Your task to perform on an android device: open app "Booking.com: Hotels and more" Image 0: 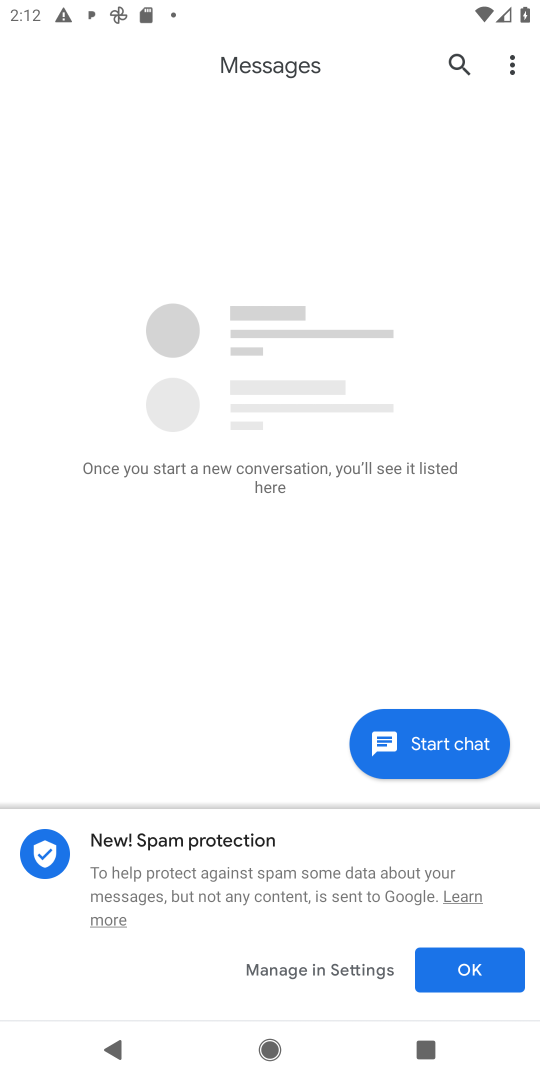
Step 0: press home button
Your task to perform on an android device: open app "Booking.com: Hotels and more" Image 1: 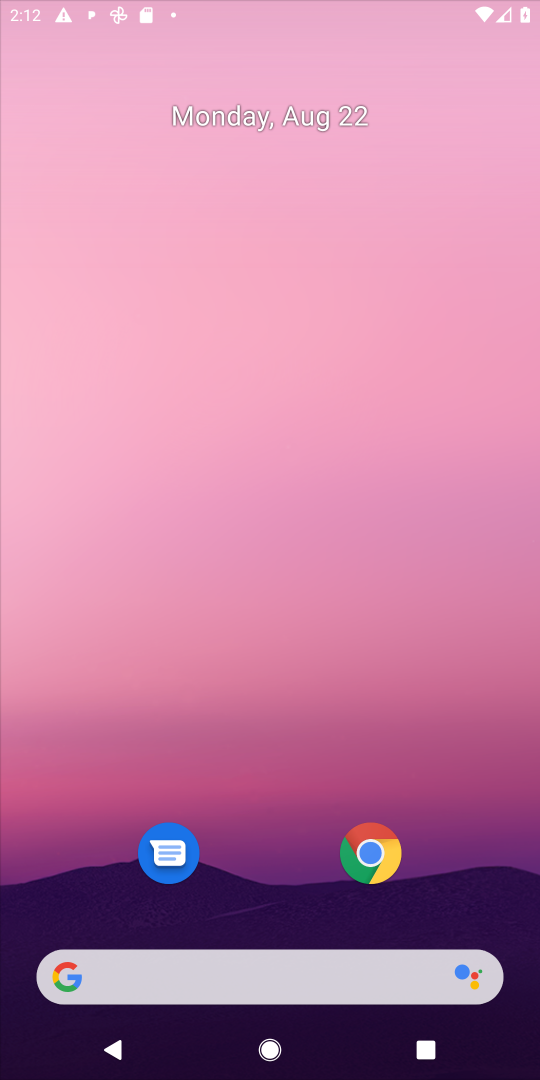
Step 1: drag from (211, 923) to (227, 279)
Your task to perform on an android device: open app "Booking.com: Hotels and more" Image 2: 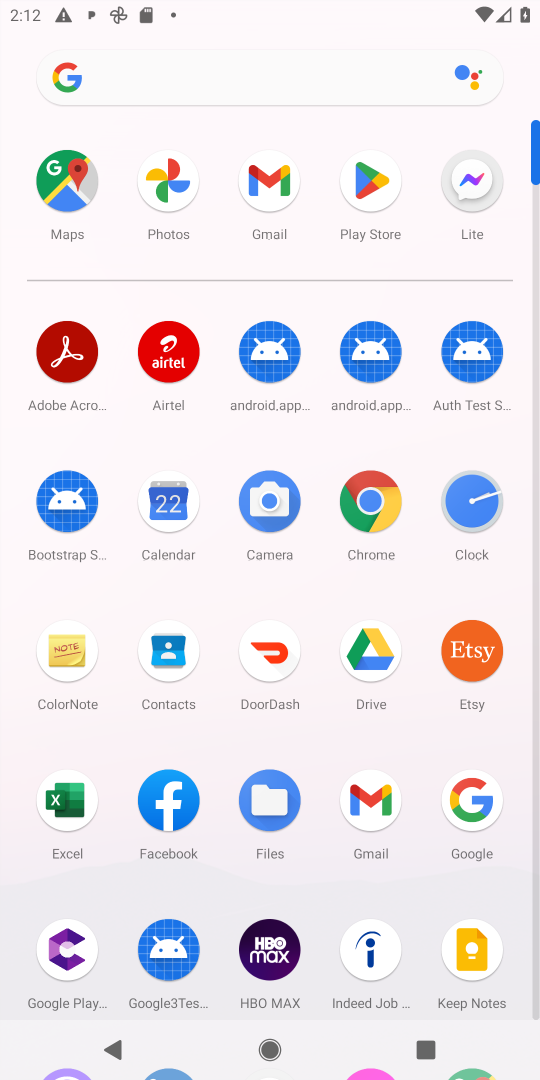
Step 2: click (379, 186)
Your task to perform on an android device: open app "Booking.com: Hotels and more" Image 3: 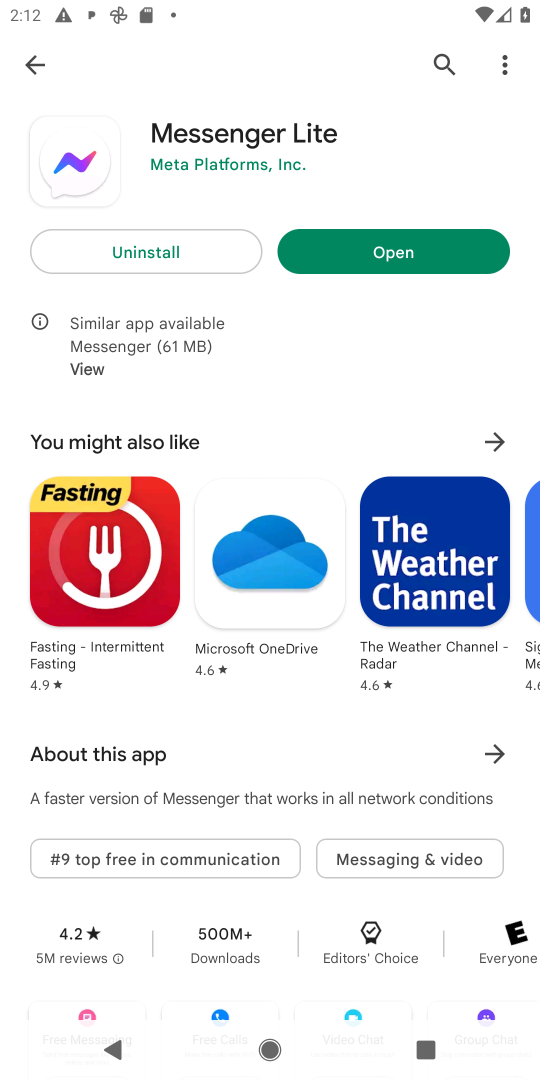
Step 3: click (22, 59)
Your task to perform on an android device: open app "Booking.com: Hotels and more" Image 4: 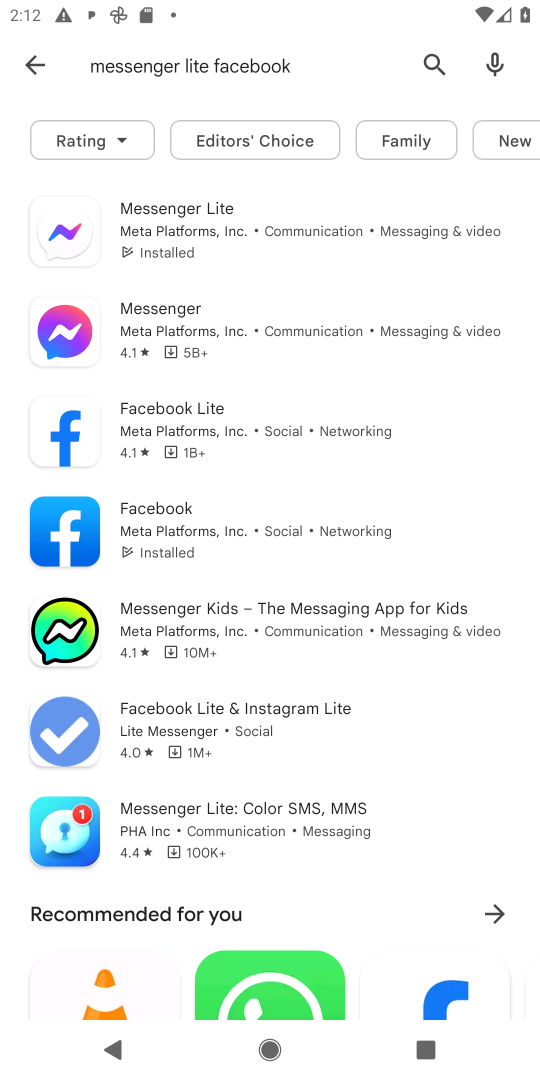
Step 4: click (50, 62)
Your task to perform on an android device: open app "Booking.com: Hotels and more" Image 5: 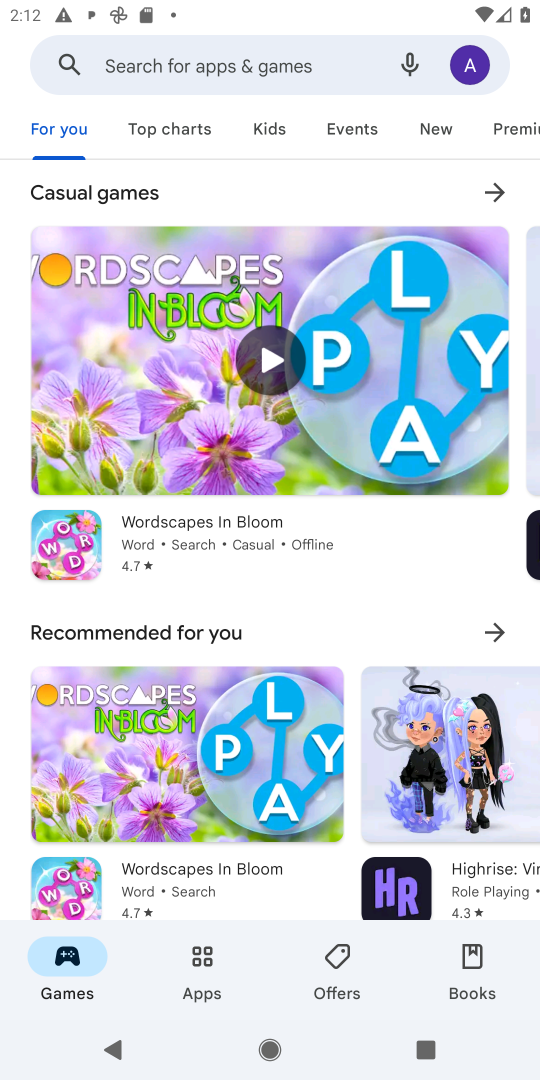
Step 5: click (264, 50)
Your task to perform on an android device: open app "Booking.com: Hotels and more" Image 6: 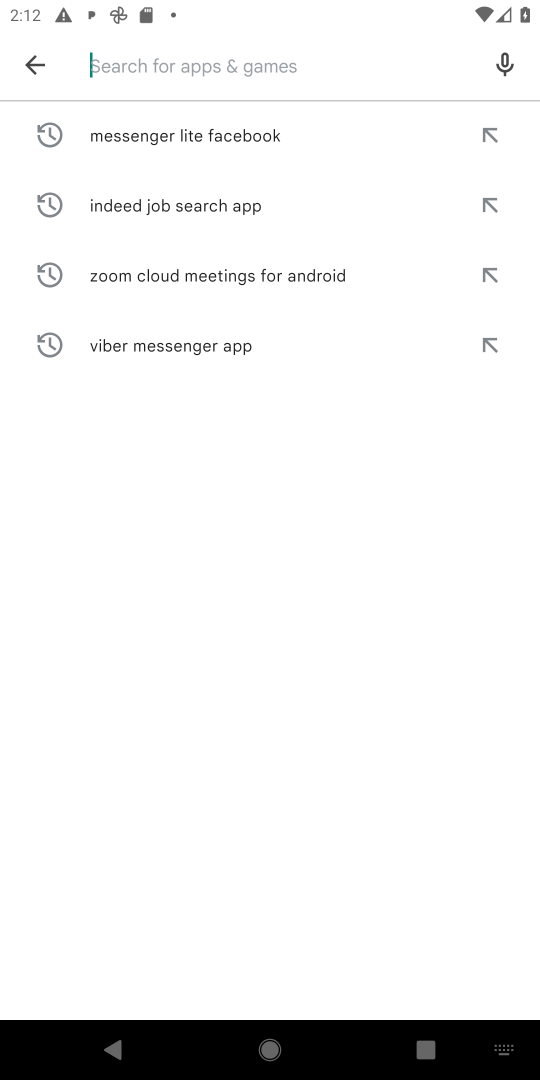
Step 6: type "Booking.com: Hotels and more "
Your task to perform on an android device: open app "Booking.com: Hotels and more" Image 7: 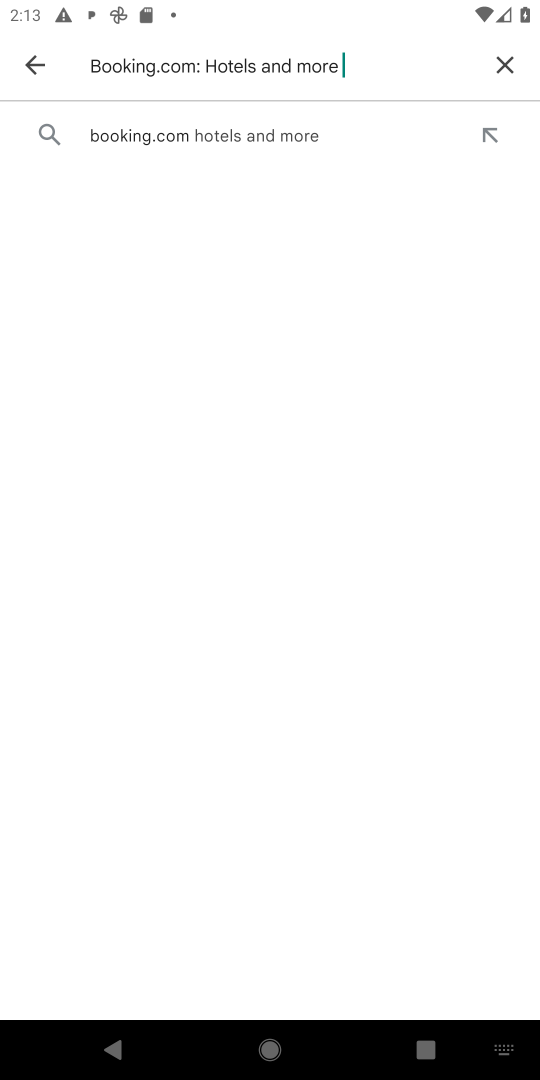
Step 7: click (199, 137)
Your task to perform on an android device: open app "Booking.com: Hotels and more" Image 8: 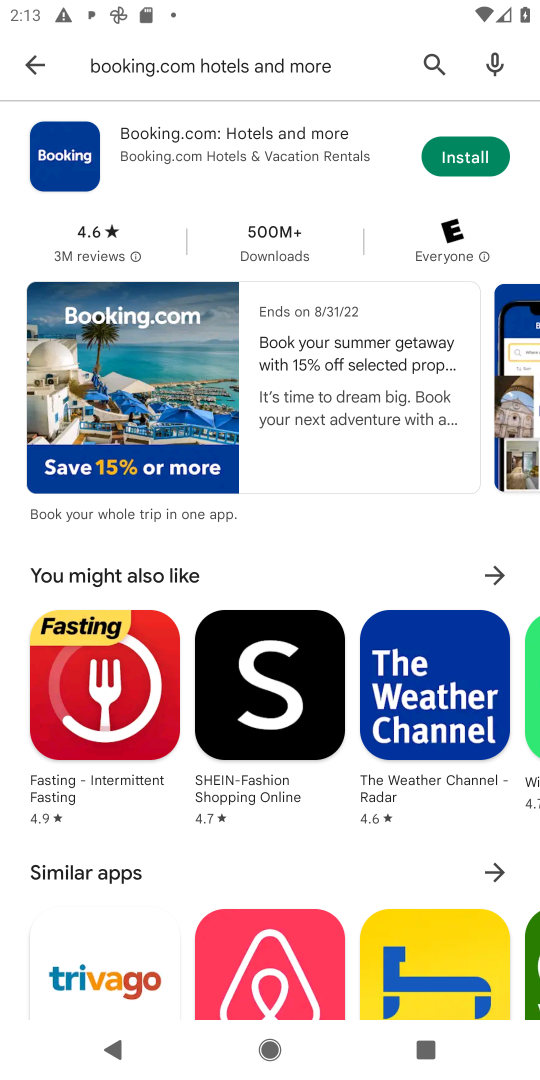
Step 8: click (470, 163)
Your task to perform on an android device: open app "Booking.com: Hotels and more" Image 9: 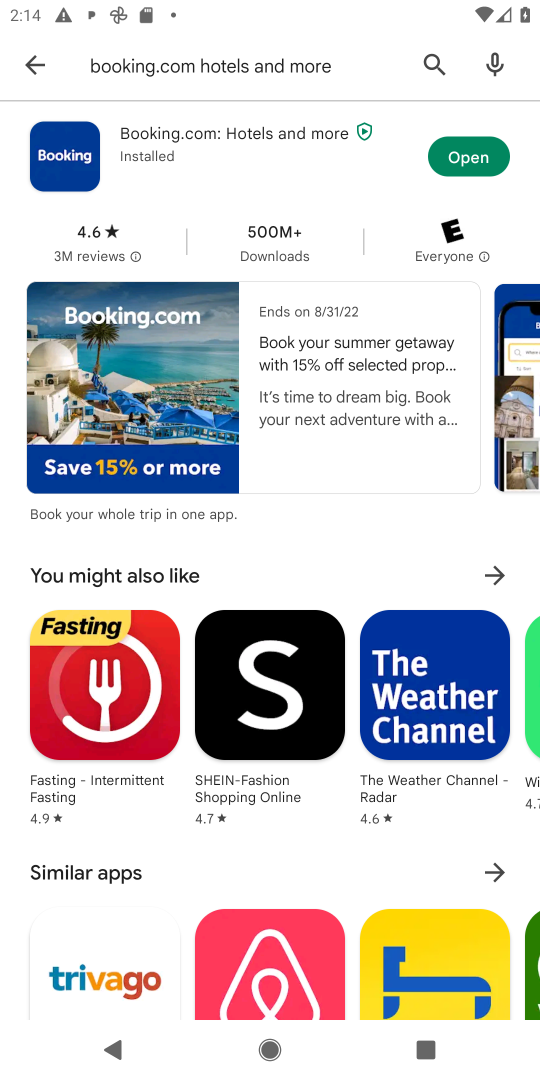
Step 9: click (459, 144)
Your task to perform on an android device: open app "Booking.com: Hotels and more" Image 10: 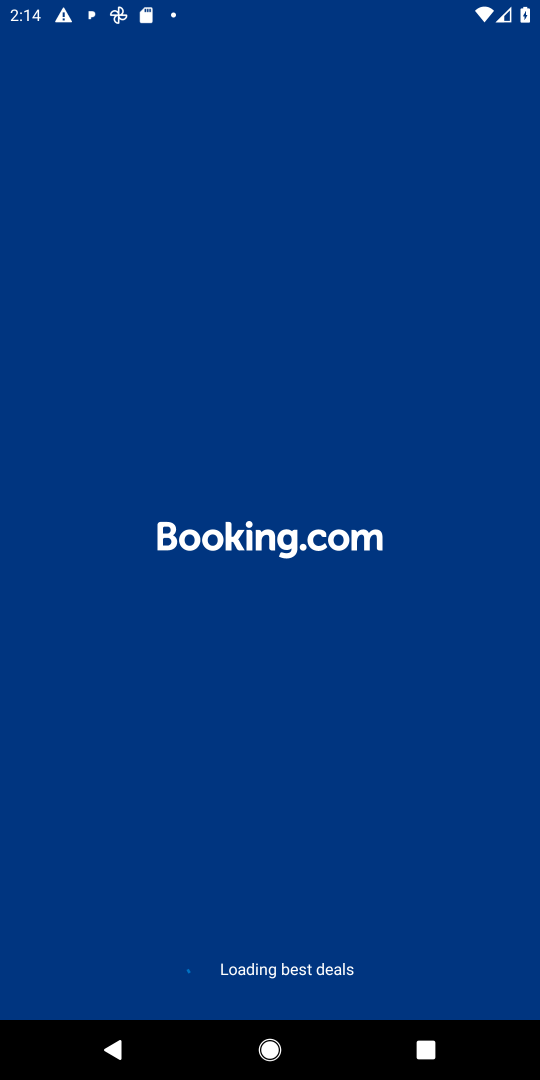
Step 10: task complete